Your task to perform on an android device: Do I have any events tomorrow? Image 0: 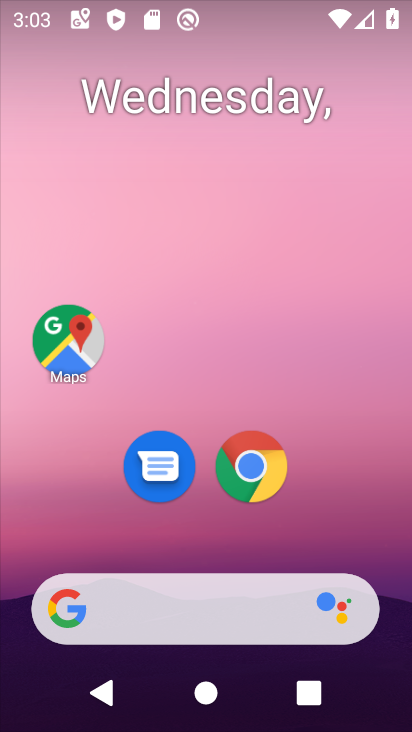
Step 0: click (230, 592)
Your task to perform on an android device: Do I have any events tomorrow? Image 1: 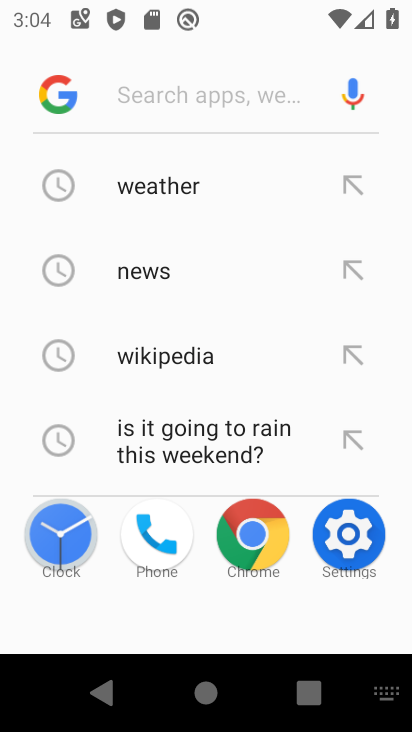
Step 1: click (137, 203)
Your task to perform on an android device: Do I have any events tomorrow? Image 2: 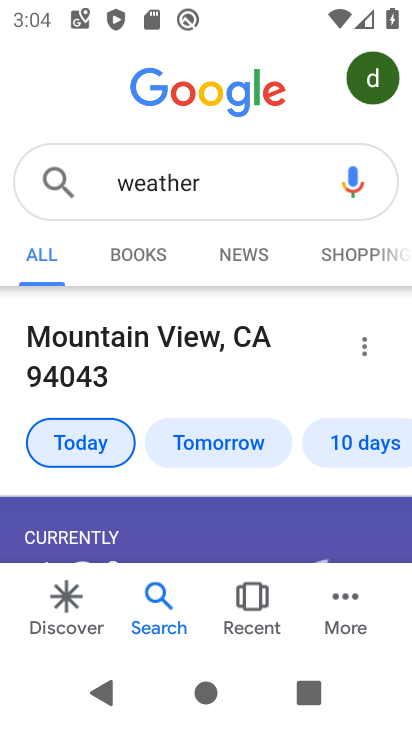
Step 2: click (216, 454)
Your task to perform on an android device: Do I have any events tomorrow? Image 3: 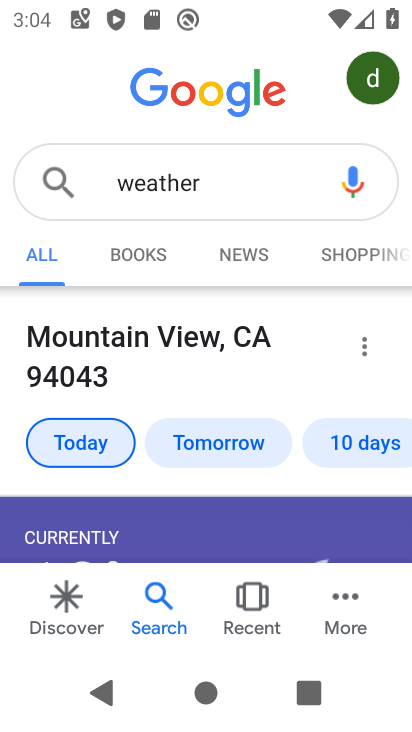
Step 3: task complete